Your task to perform on an android device: Go to Amazon Image 0: 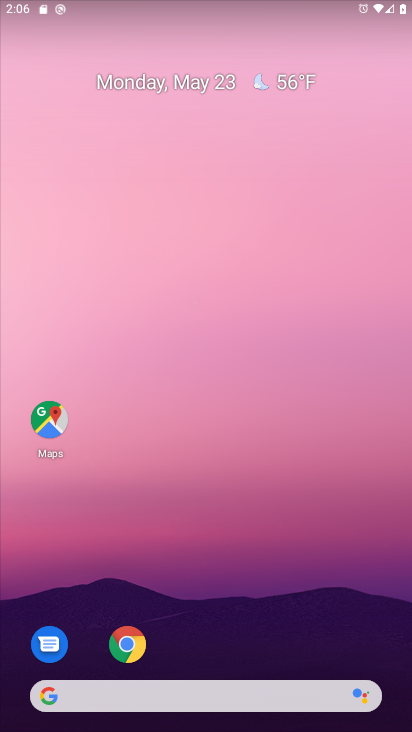
Step 0: click (124, 654)
Your task to perform on an android device: Go to Amazon Image 1: 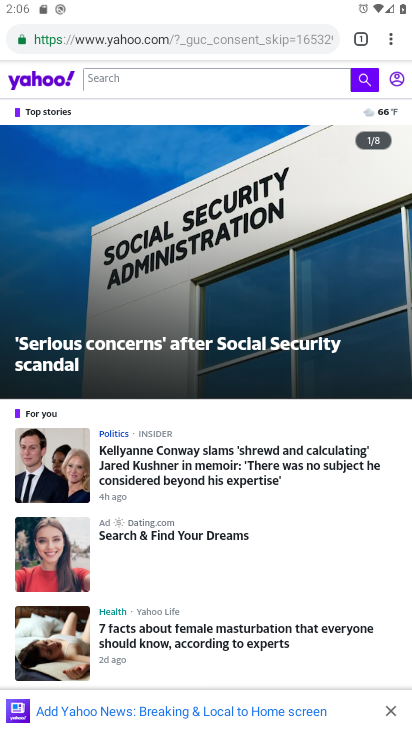
Step 1: press back button
Your task to perform on an android device: Go to Amazon Image 2: 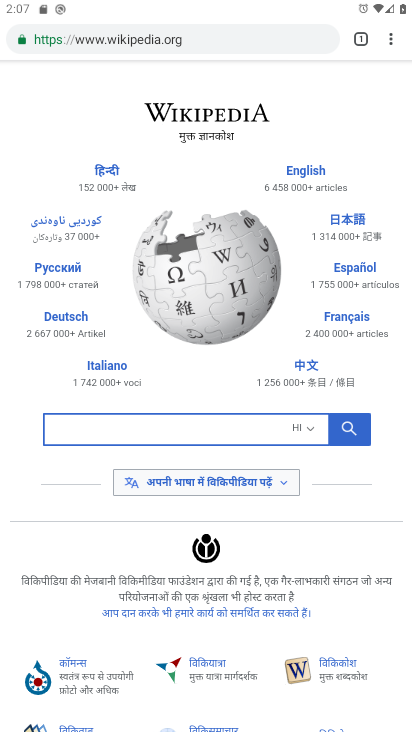
Step 2: press back button
Your task to perform on an android device: Go to Amazon Image 3: 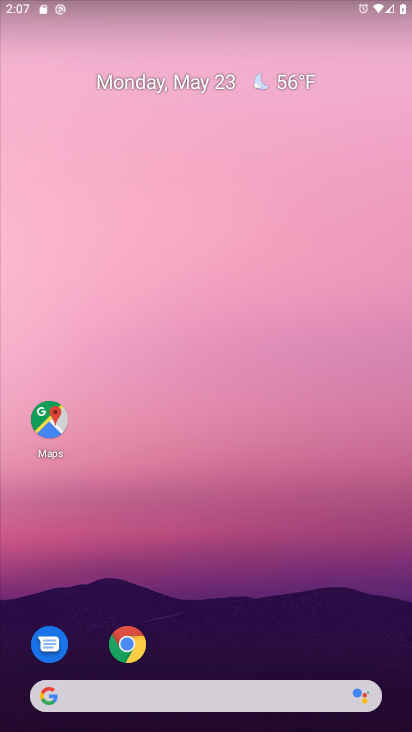
Step 3: click (130, 654)
Your task to perform on an android device: Go to Amazon Image 4: 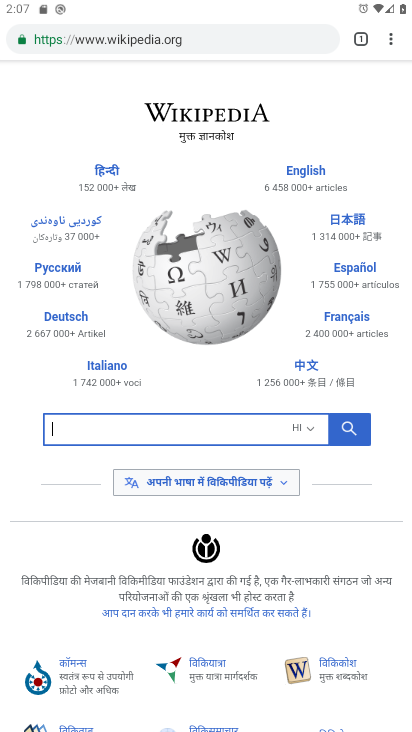
Step 4: click (137, 49)
Your task to perform on an android device: Go to Amazon Image 5: 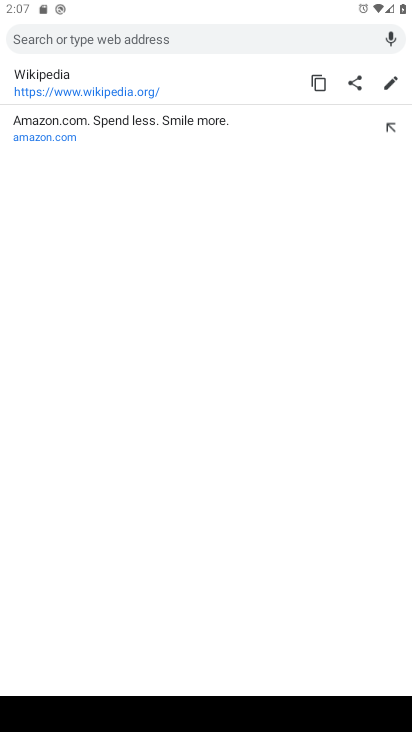
Step 5: click (66, 139)
Your task to perform on an android device: Go to Amazon Image 6: 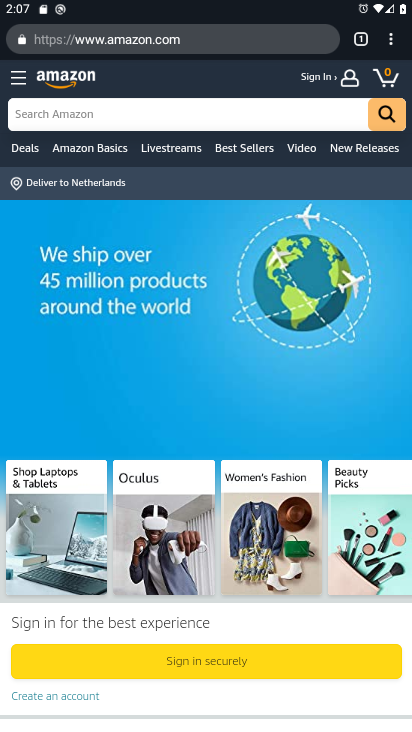
Step 6: task complete